Your task to perform on an android device: turn off improve location accuracy Image 0: 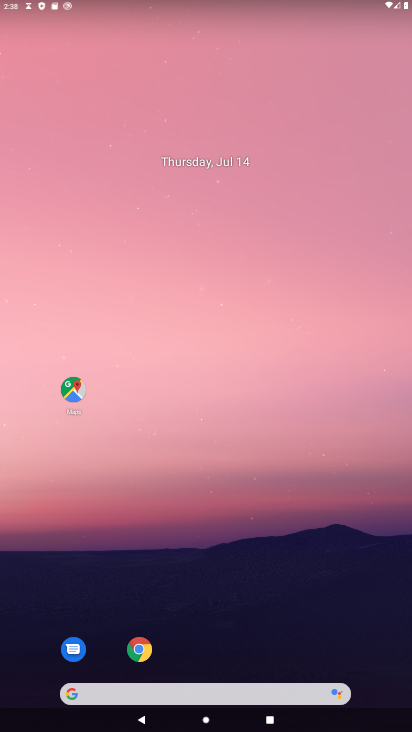
Step 0: drag from (202, 631) to (264, 0)
Your task to perform on an android device: turn off improve location accuracy Image 1: 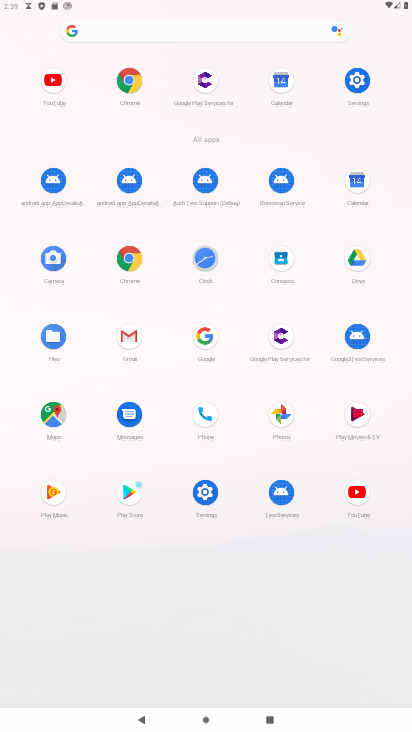
Step 1: click (215, 509)
Your task to perform on an android device: turn off improve location accuracy Image 2: 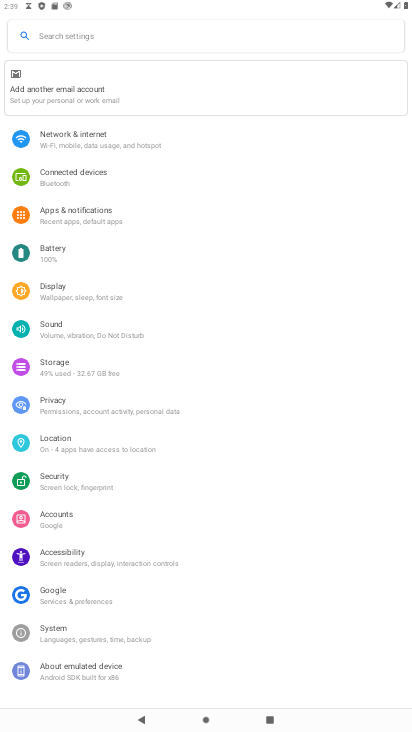
Step 2: click (108, 450)
Your task to perform on an android device: turn off improve location accuracy Image 3: 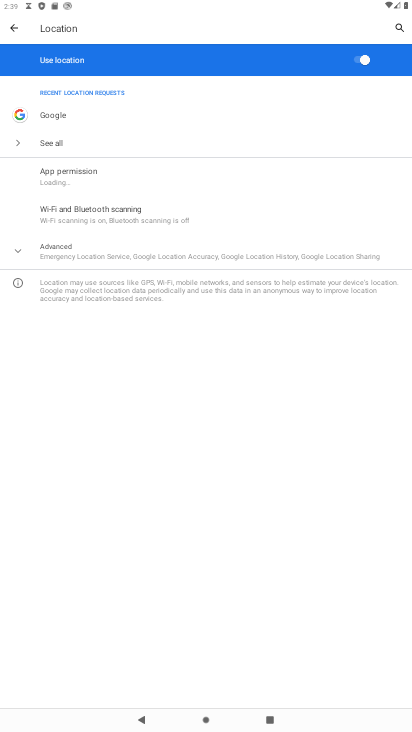
Step 3: click (109, 255)
Your task to perform on an android device: turn off improve location accuracy Image 4: 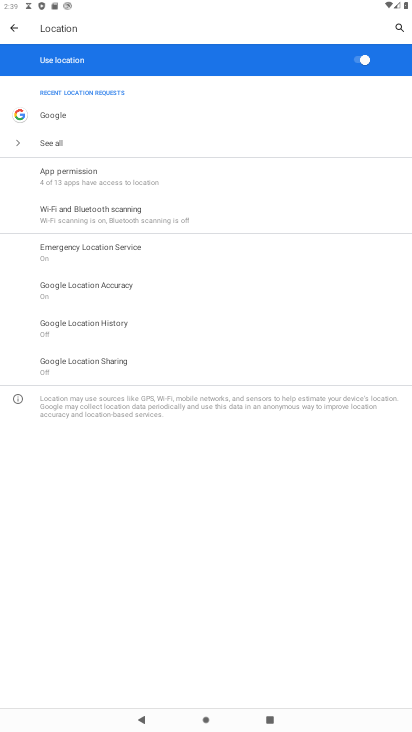
Step 4: click (122, 285)
Your task to perform on an android device: turn off improve location accuracy Image 5: 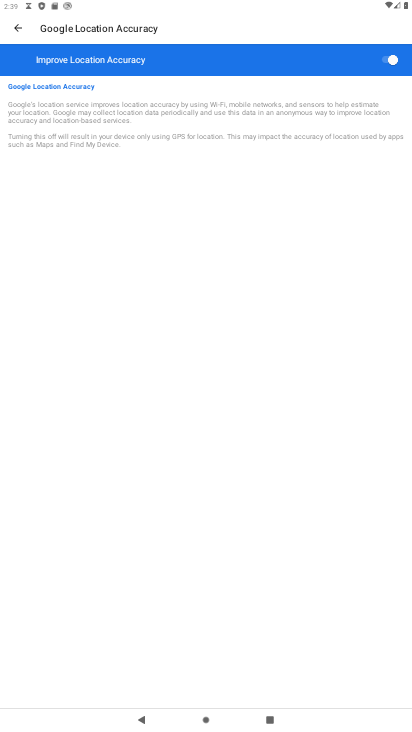
Step 5: click (368, 65)
Your task to perform on an android device: turn off improve location accuracy Image 6: 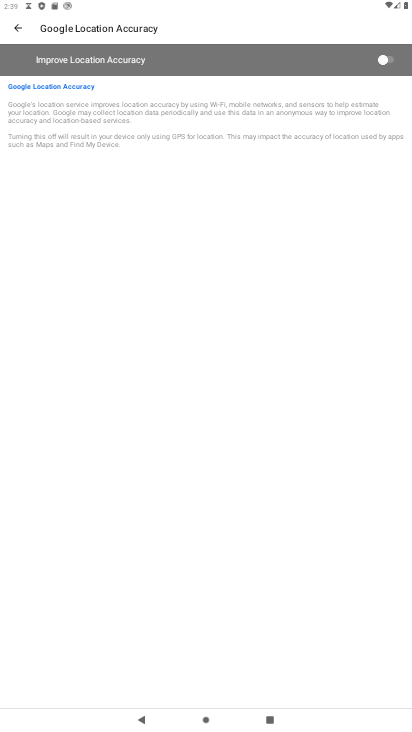
Step 6: task complete